Your task to perform on an android device: Open the calendar app, open the side menu, and click the "Day" option Image 0: 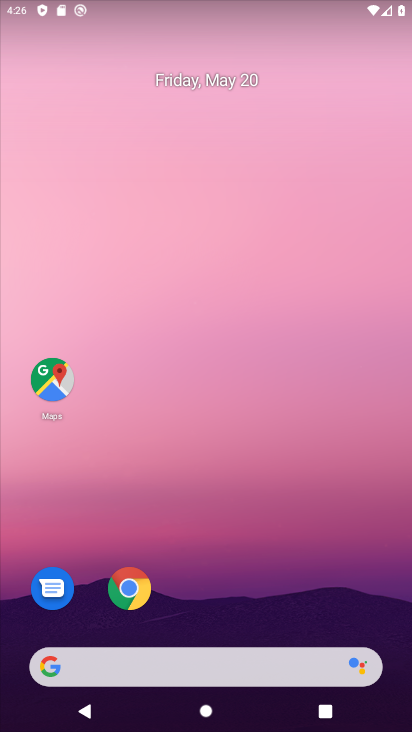
Step 0: drag from (245, 626) to (261, 73)
Your task to perform on an android device: Open the calendar app, open the side menu, and click the "Day" option Image 1: 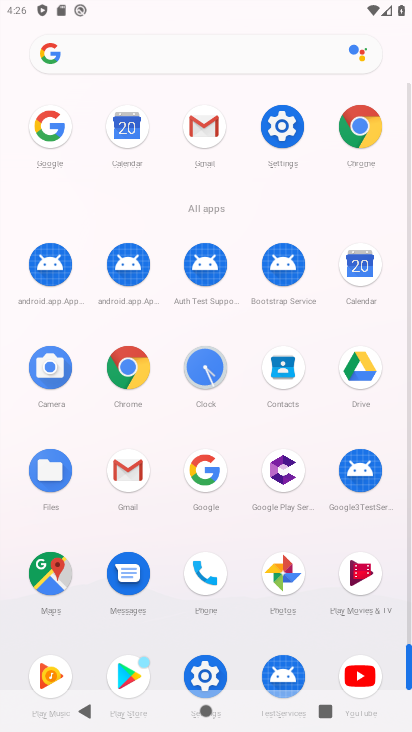
Step 1: click (360, 261)
Your task to perform on an android device: Open the calendar app, open the side menu, and click the "Day" option Image 2: 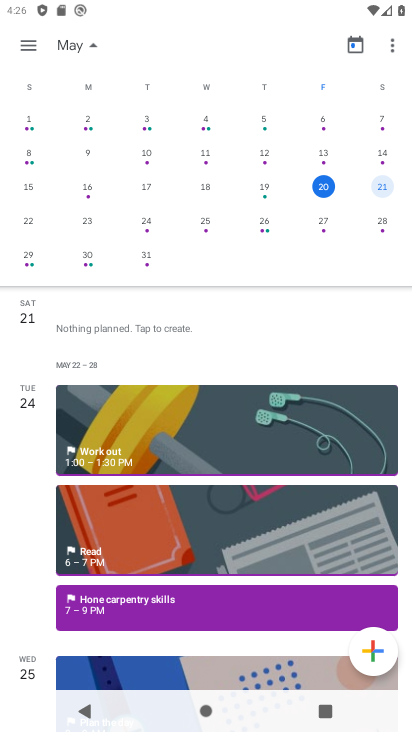
Step 2: click (33, 44)
Your task to perform on an android device: Open the calendar app, open the side menu, and click the "Day" option Image 3: 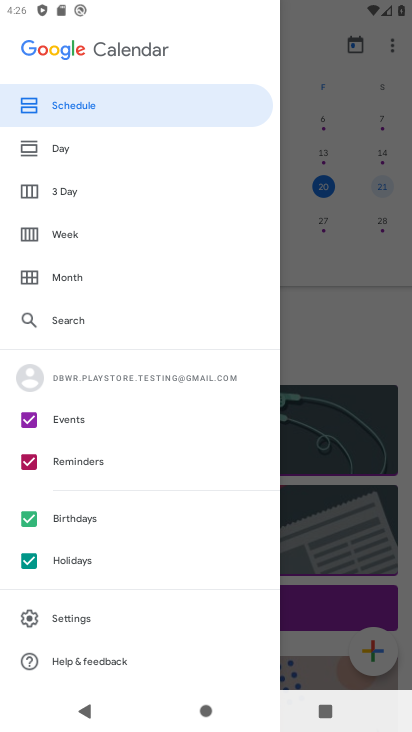
Step 3: click (61, 145)
Your task to perform on an android device: Open the calendar app, open the side menu, and click the "Day" option Image 4: 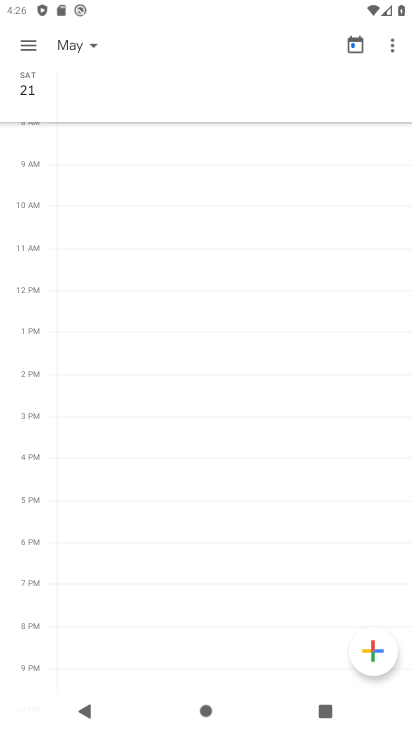
Step 4: task complete